Your task to perform on an android device: Open the phone app and click the voicemail tab. Image 0: 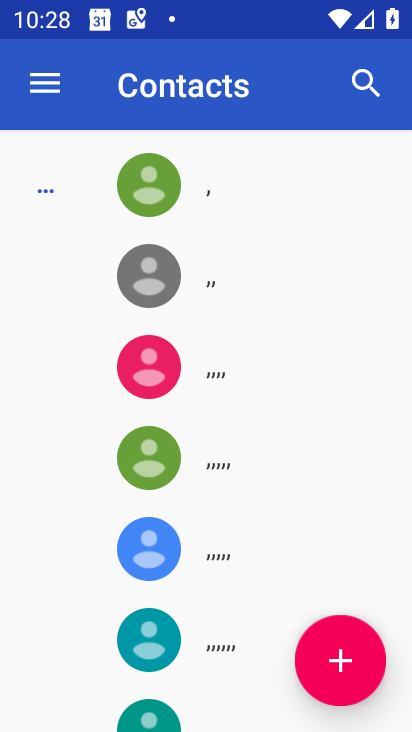
Step 0: press home button
Your task to perform on an android device: Open the phone app and click the voicemail tab. Image 1: 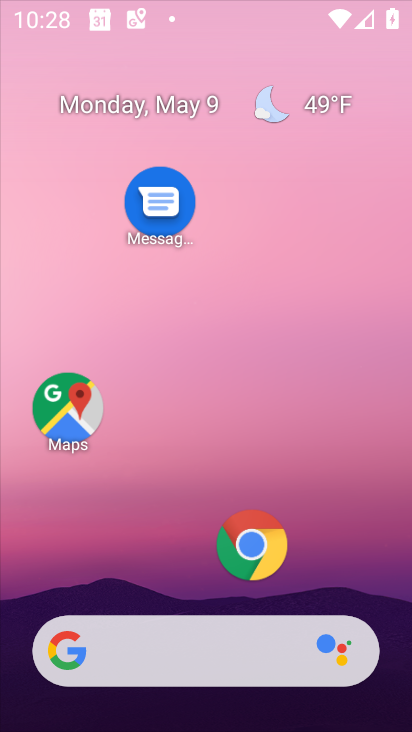
Step 1: drag from (143, 608) to (135, 149)
Your task to perform on an android device: Open the phone app and click the voicemail tab. Image 2: 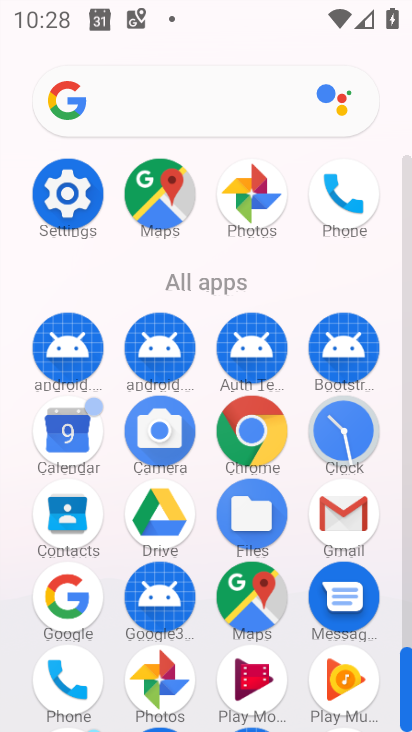
Step 2: click (83, 679)
Your task to perform on an android device: Open the phone app and click the voicemail tab. Image 3: 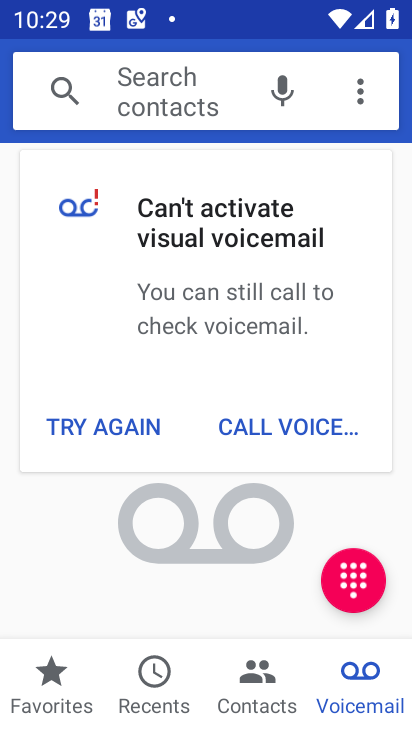
Step 3: click (367, 687)
Your task to perform on an android device: Open the phone app and click the voicemail tab. Image 4: 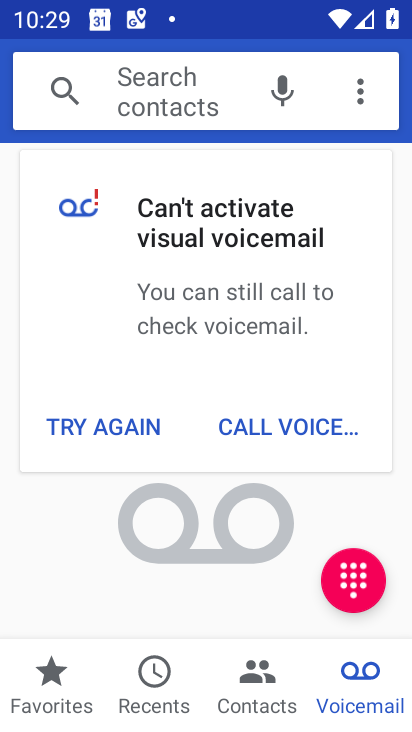
Step 4: task complete